Your task to perform on an android device: add a contact in the contacts app Image 0: 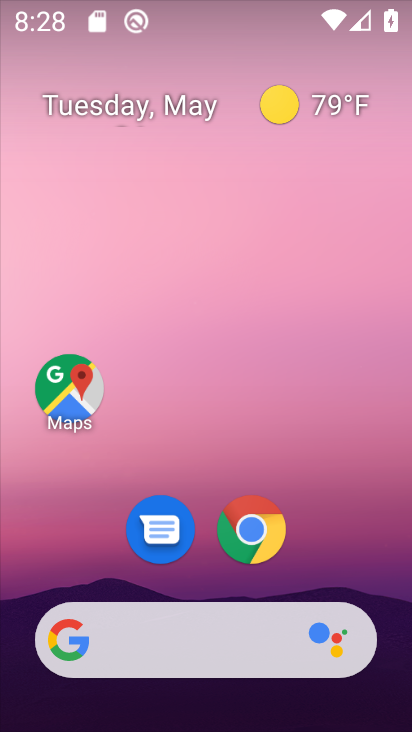
Step 0: drag from (353, 388) to (370, 151)
Your task to perform on an android device: add a contact in the contacts app Image 1: 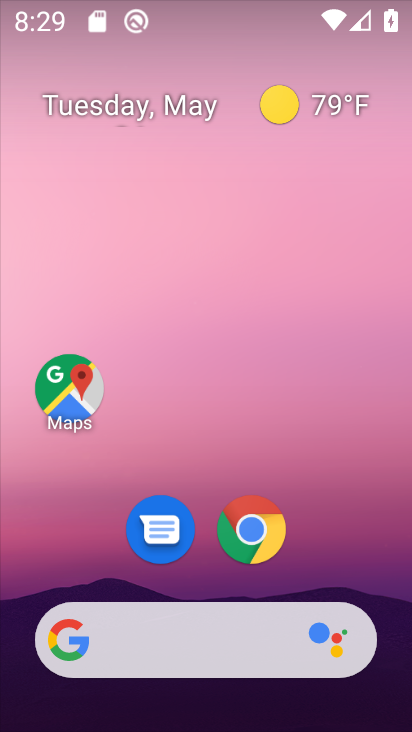
Step 1: drag from (320, 561) to (346, 177)
Your task to perform on an android device: add a contact in the contacts app Image 2: 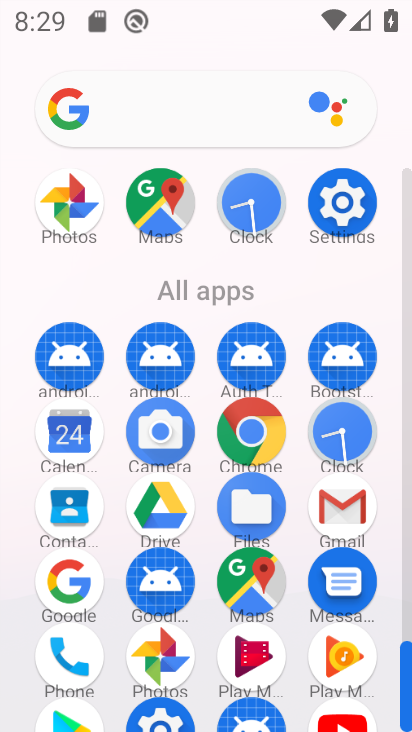
Step 2: drag from (292, 607) to (319, 281)
Your task to perform on an android device: add a contact in the contacts app Image 3: 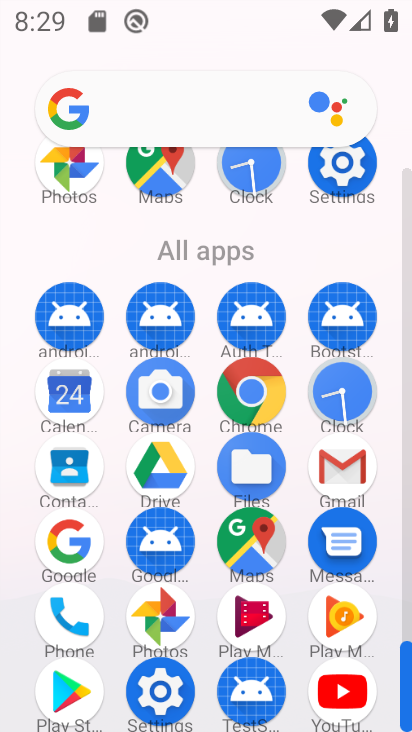
Step 3: drag from (303, 244) to (305, 429)
Your task to perform on an android device: add a contact in the contacts app Image 4: 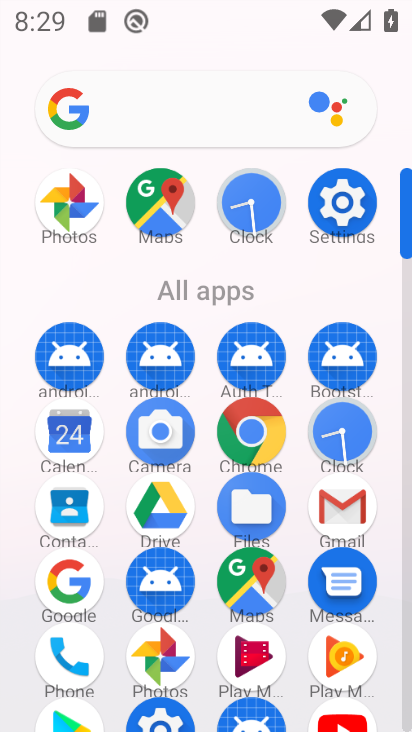
Step 4: click (79, 504)
Your task to perform on an android device: add a contact in the contacts app Image 5: 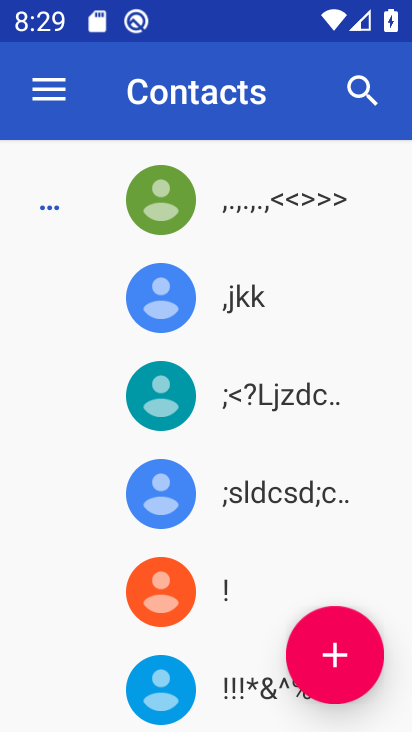
Step 5: click (320, 676)
Your task to perform on an android device: add a contact in the contacts app Image 6: 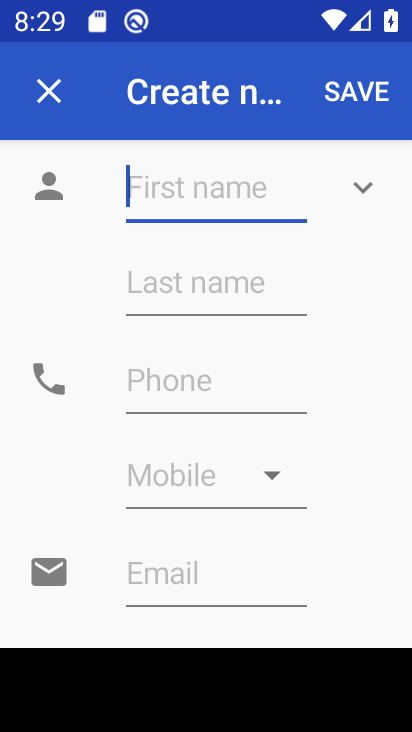
Step 6: type "firstfly"
Your task to perform on an android device: add a contact in the contacts app Image 7: 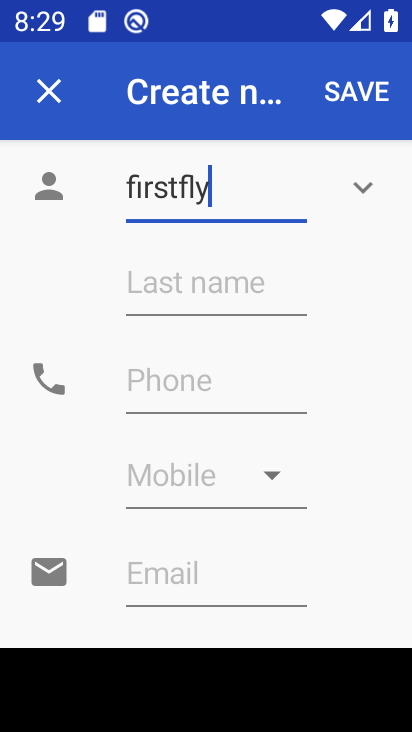
Step 7: click (354, 86)
Your task to perform on an android device: add a contact in the contacts app Image 8: 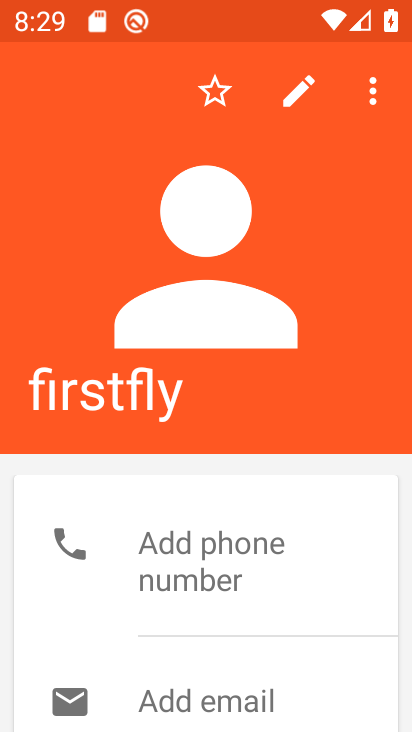
Step 8: task complete